Your task to perform on an android device: Clear all items from cart on newegg.com. Image 0: 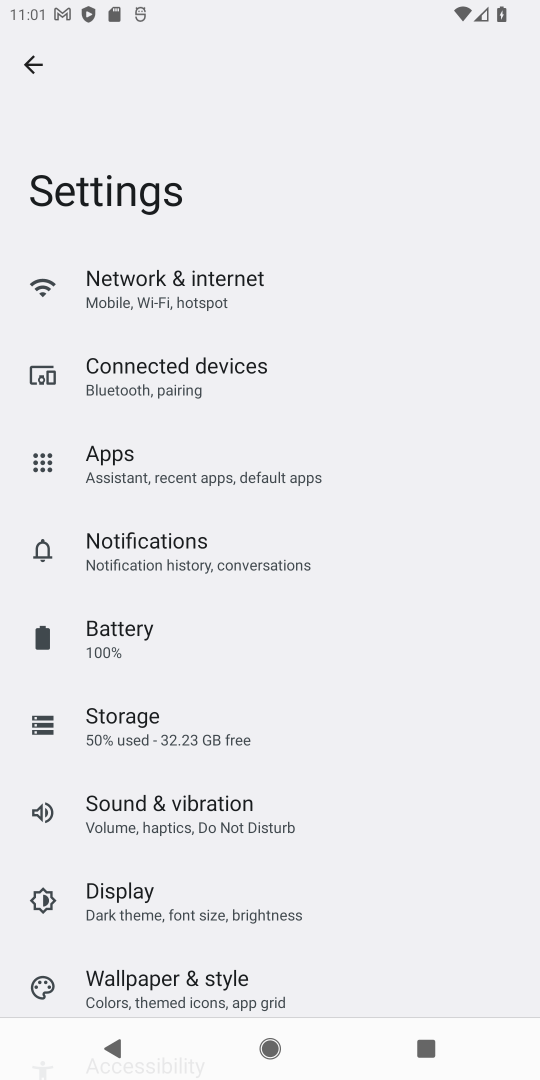
Step 0: press home button
Your task to perform on an android device: Clear all items from cart on newegg.com. Image 1: 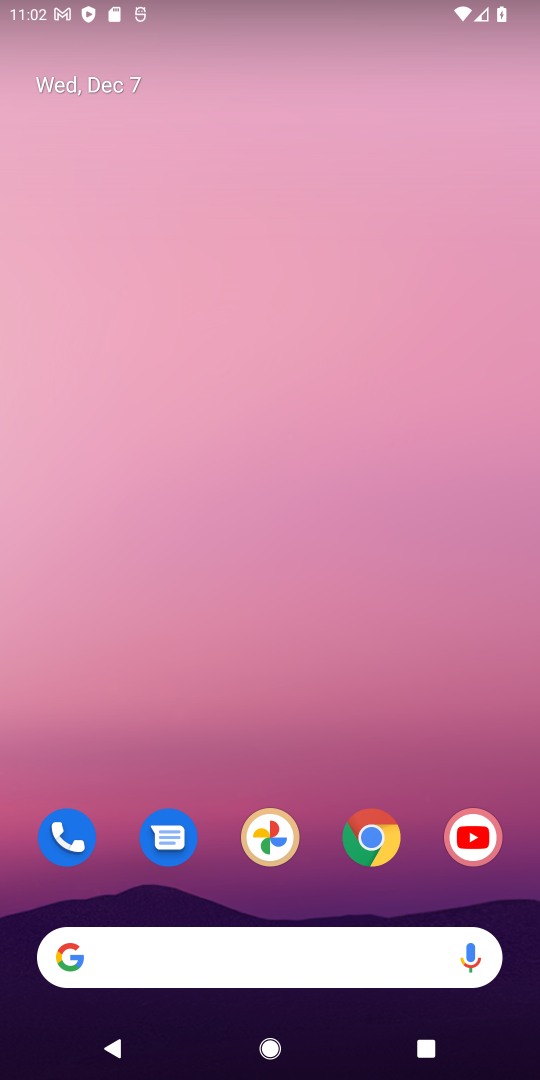
Step 1: click (385, 841)
Your task to perform on an android device: Clear all items from cart on newegg.com. Image 2: 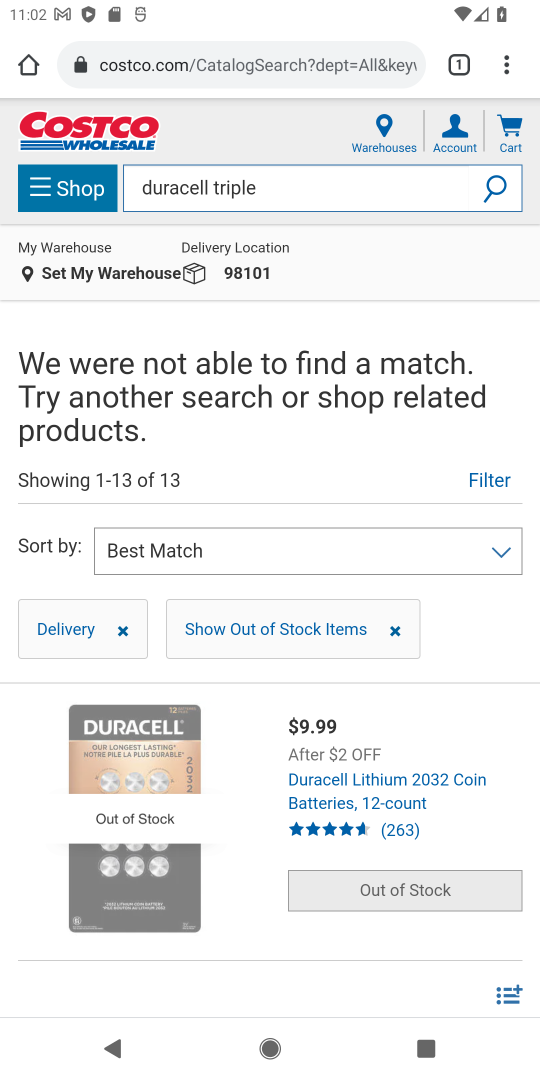
Step 2: click (210, 56)
Your task to perform on an android device: Clear all items from cart on newegg.com. Image 3: 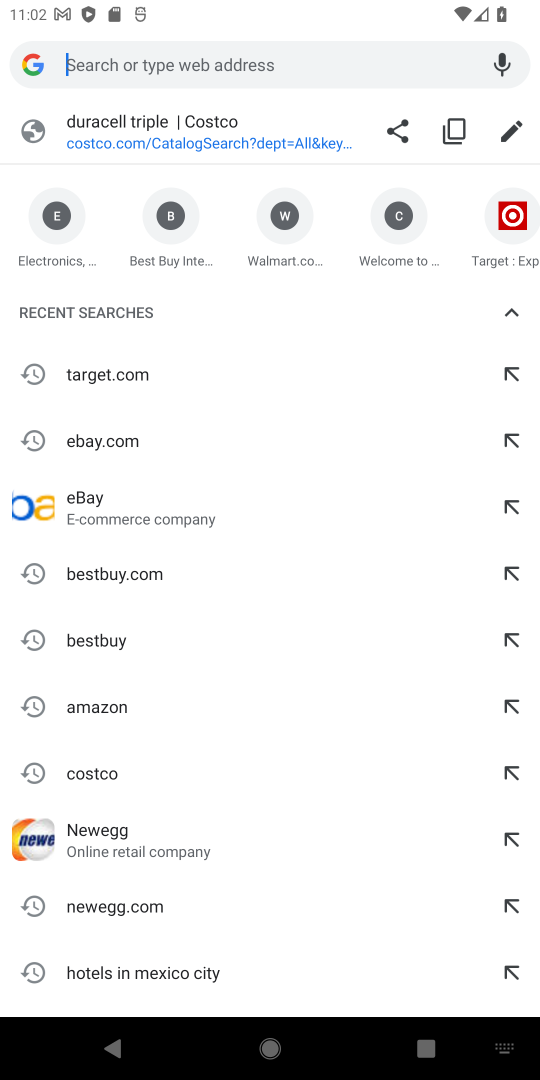
Step 3: type "newegg.com"
Your task to perform on an android device: Clear all items from cart on newegg.com. Image 4: 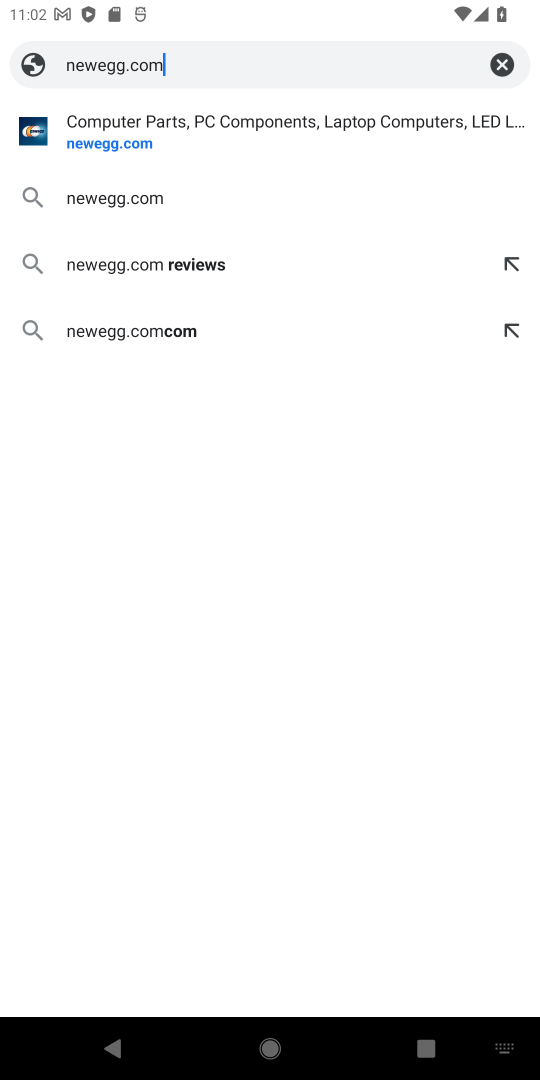
Step 4: click (126, 193)
Your task to perform on an android device: Clear all items from cart on newegg.com. Image 5: 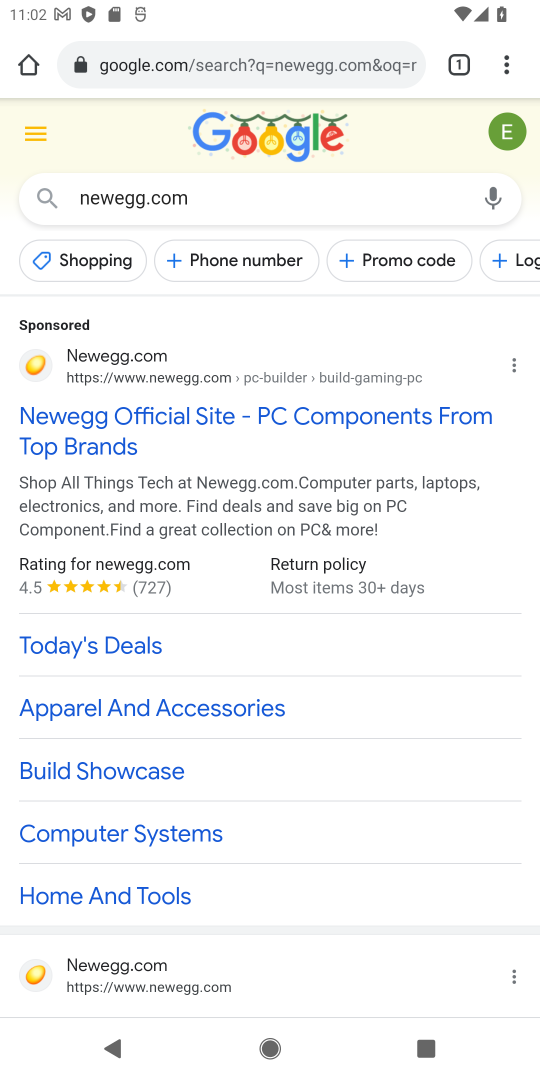
Step 5: drag from (285, 883) to (273, 569)
Your task to perform on an android device: Clear all items from cart on newegg.com. Image 6: 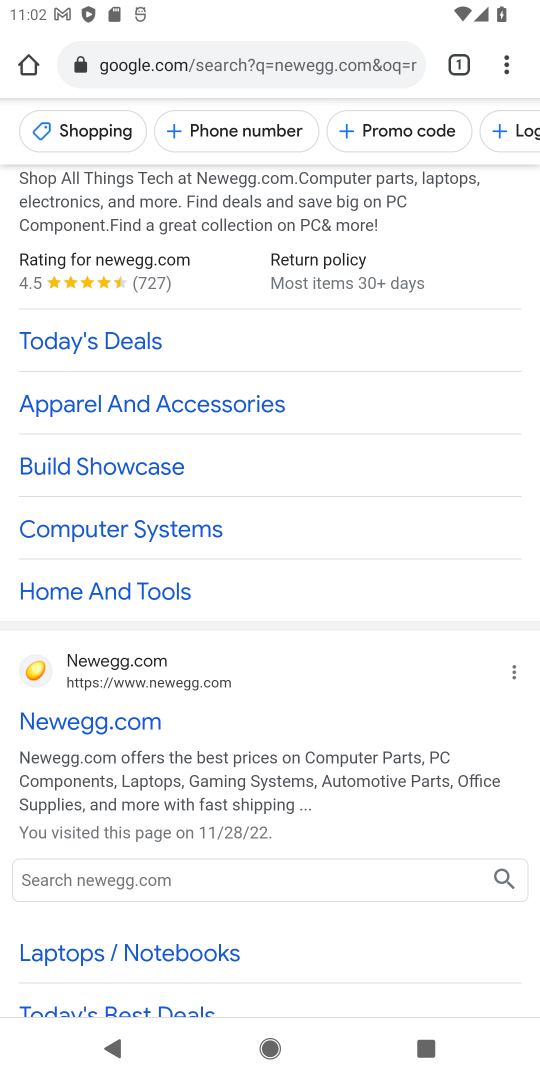
Step 6: click (169, 678)
Your task to perform on an android device: Clear all items from cart on newegg.com. Image 7: 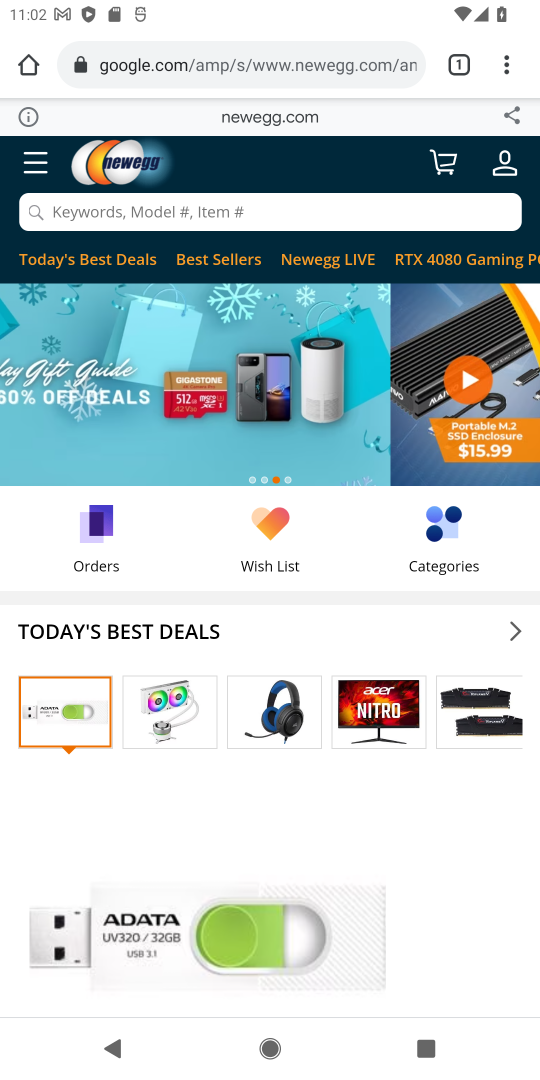
Step 7: click (446, 162)
Your task to perform on an android device: Clear all items from cart on newegg.com. Image 8: 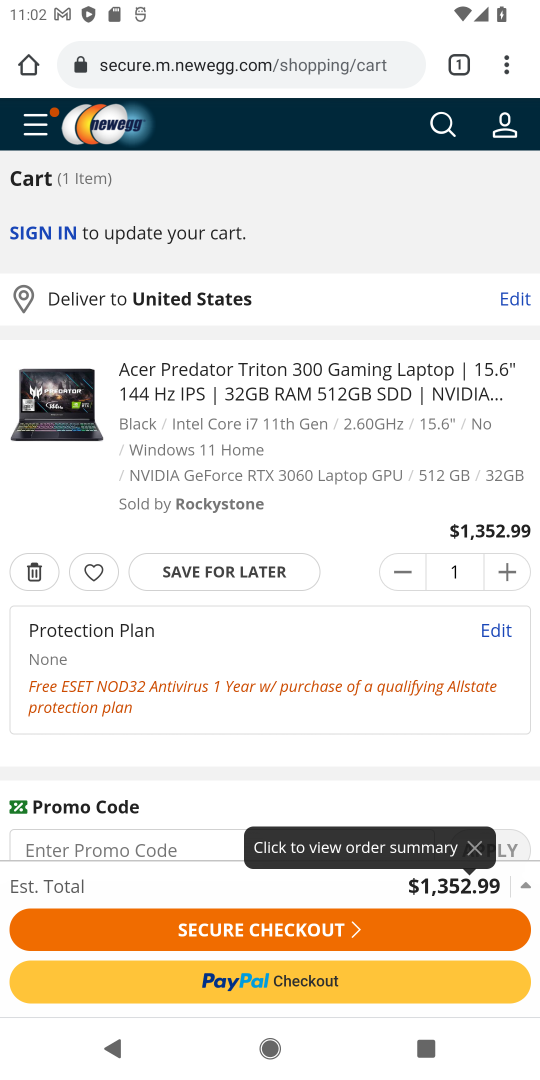
Step 8: click (30, 575)
Your task to perform on an android device: Clear all items from cart on newegg.com. Image 9: 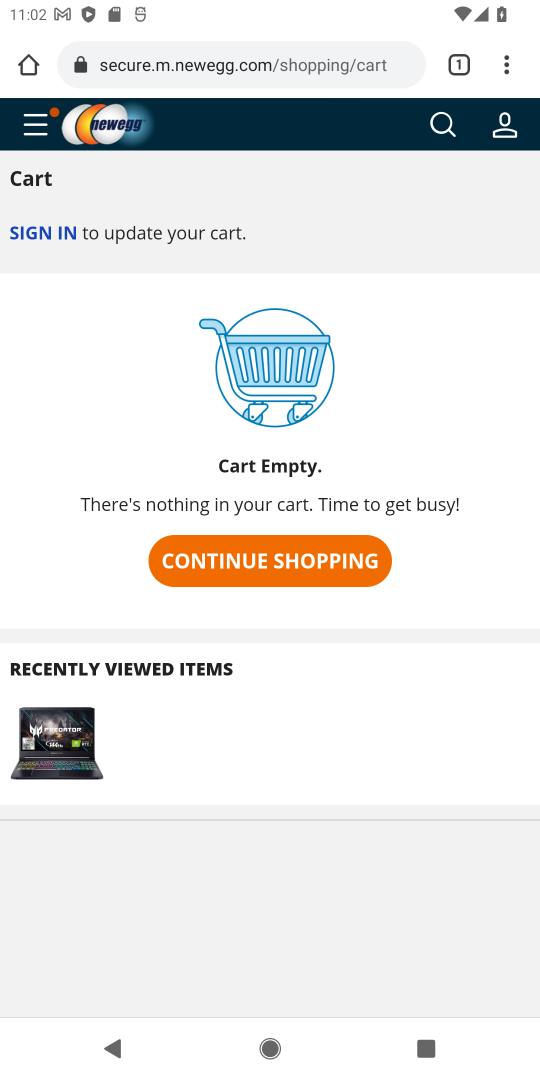
Step 9: task complete